Your task to perform on an android device: open app "Pandora - Music & Podcasts" (install if not already installed), go to login, and select forgot password Image 0: 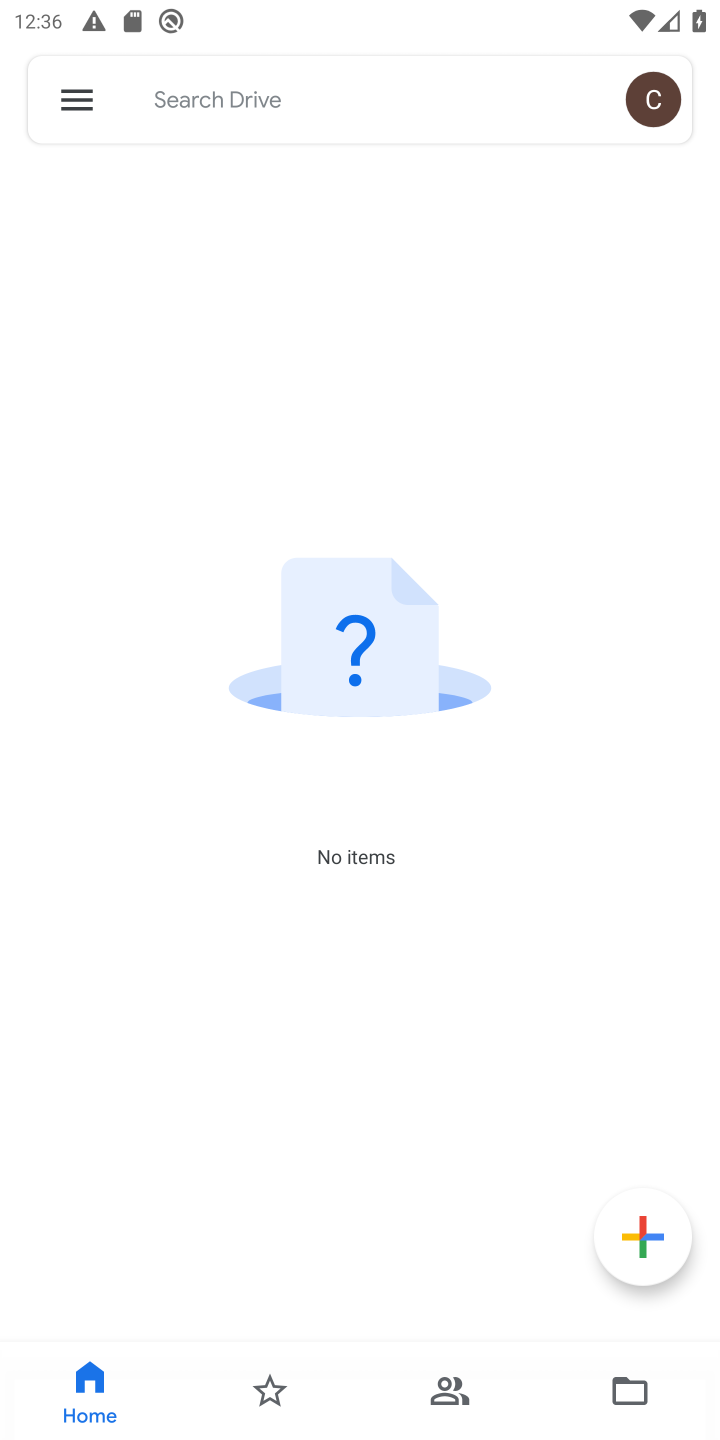
Step 0: press back button
Your task to perform on an android device: open app "Pandora - Music & Podcasts" (install if not already installed), go to login, and select forgot password Image 1: 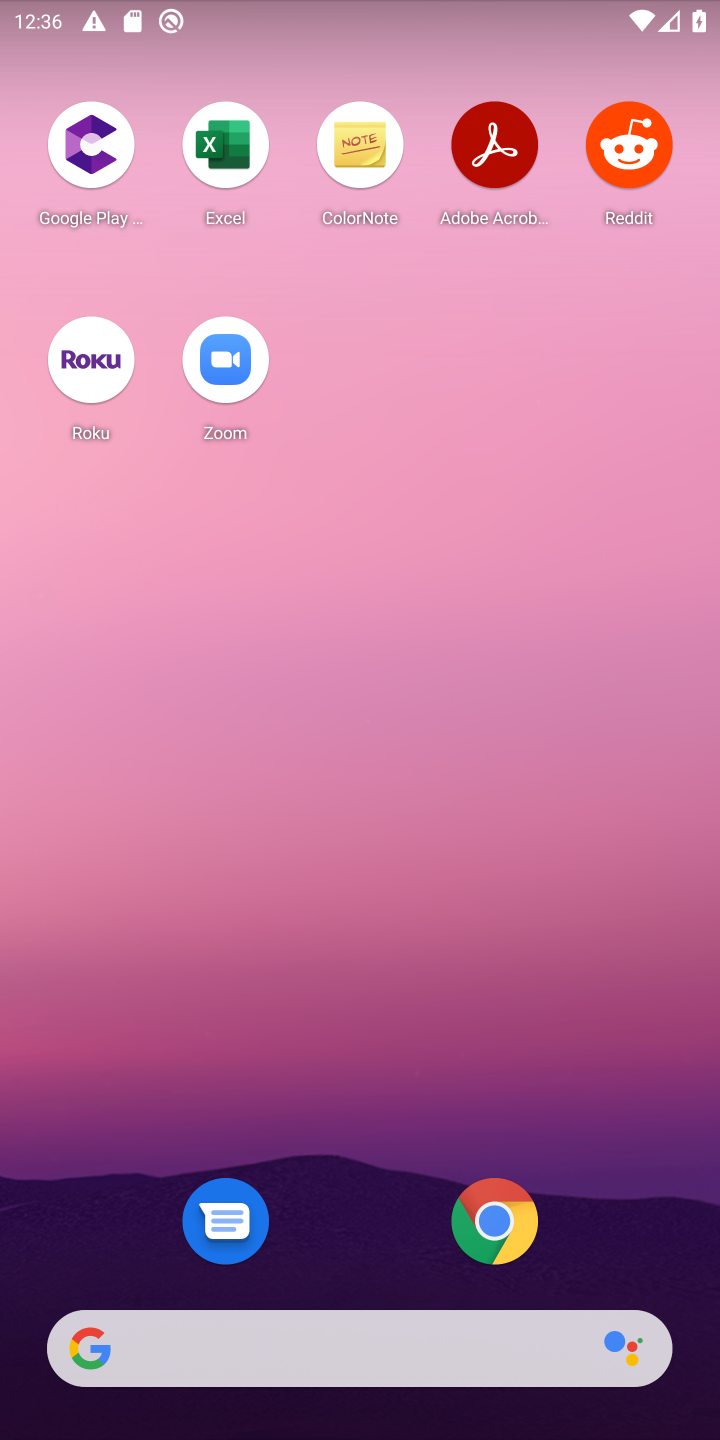
Step 1: drag from (377, 1177) to (431, 265)
Your task to perform on an android device: open app "Pandora - Music & Podcasts" (install if not already installed), go to login, and select forgot password Image 2: 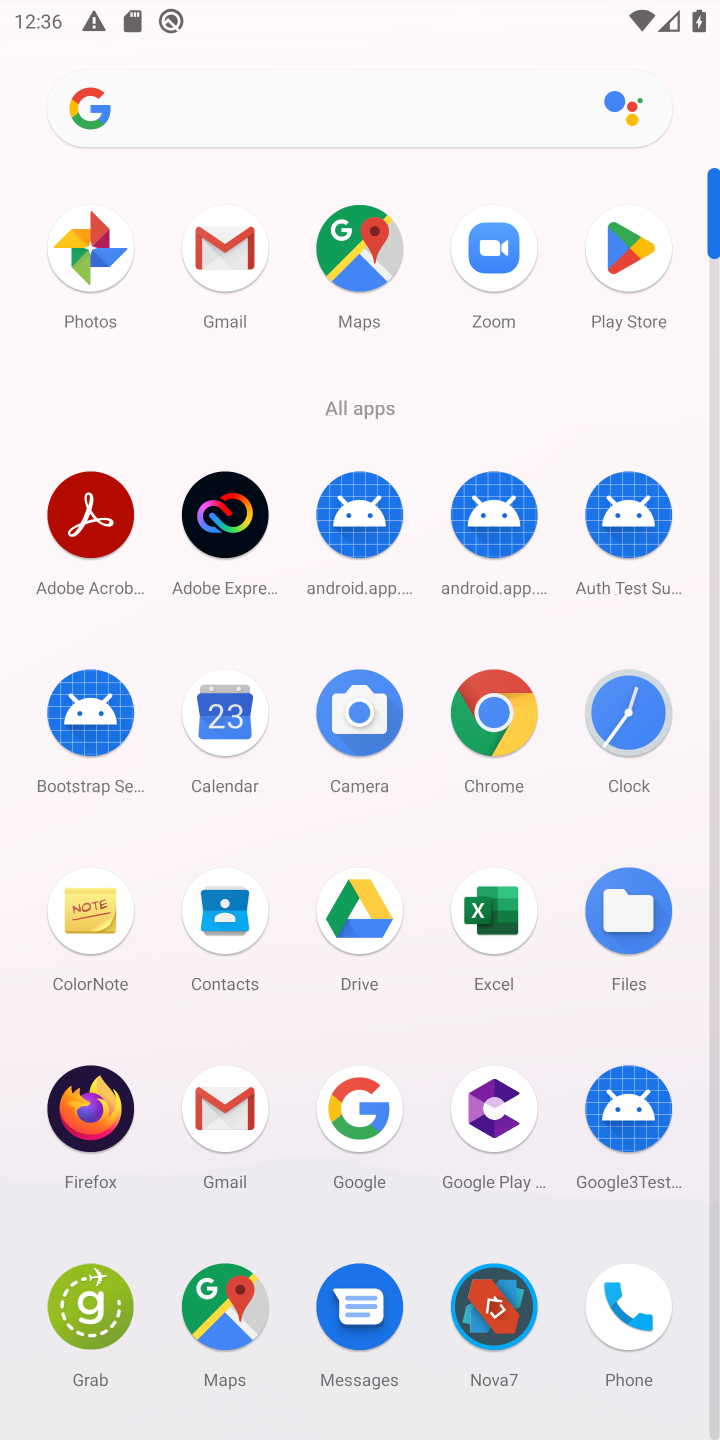
Step 2: click (614, 264)
Your task to perform on an android device: open app "Pandora - Music & Podcasts" (install if not already installed), go to login, and select forgot password Image 3: 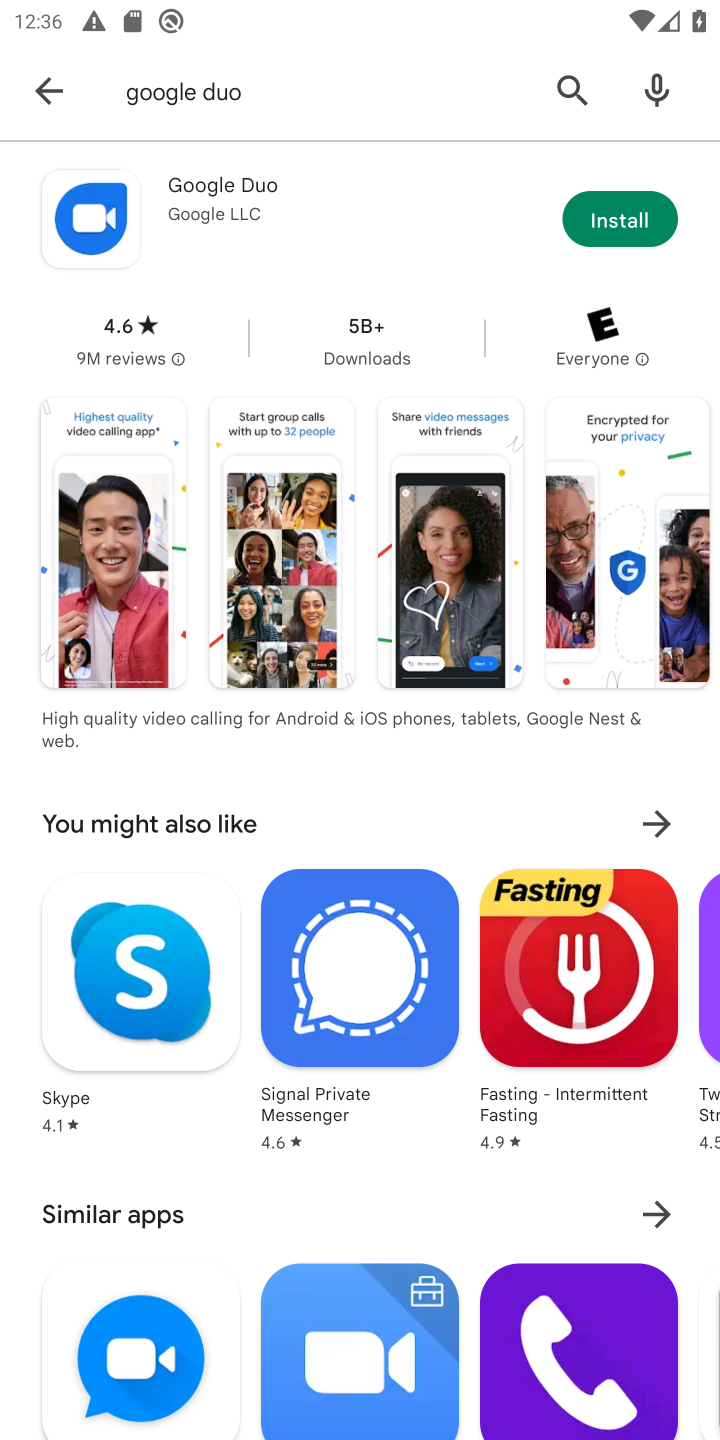
Step 3: click (593, 67)
Your task to perform on an android device: open app "Pandora - Music & Podcasts" (install if not already installed), go to login, and select forgot password Image 4: 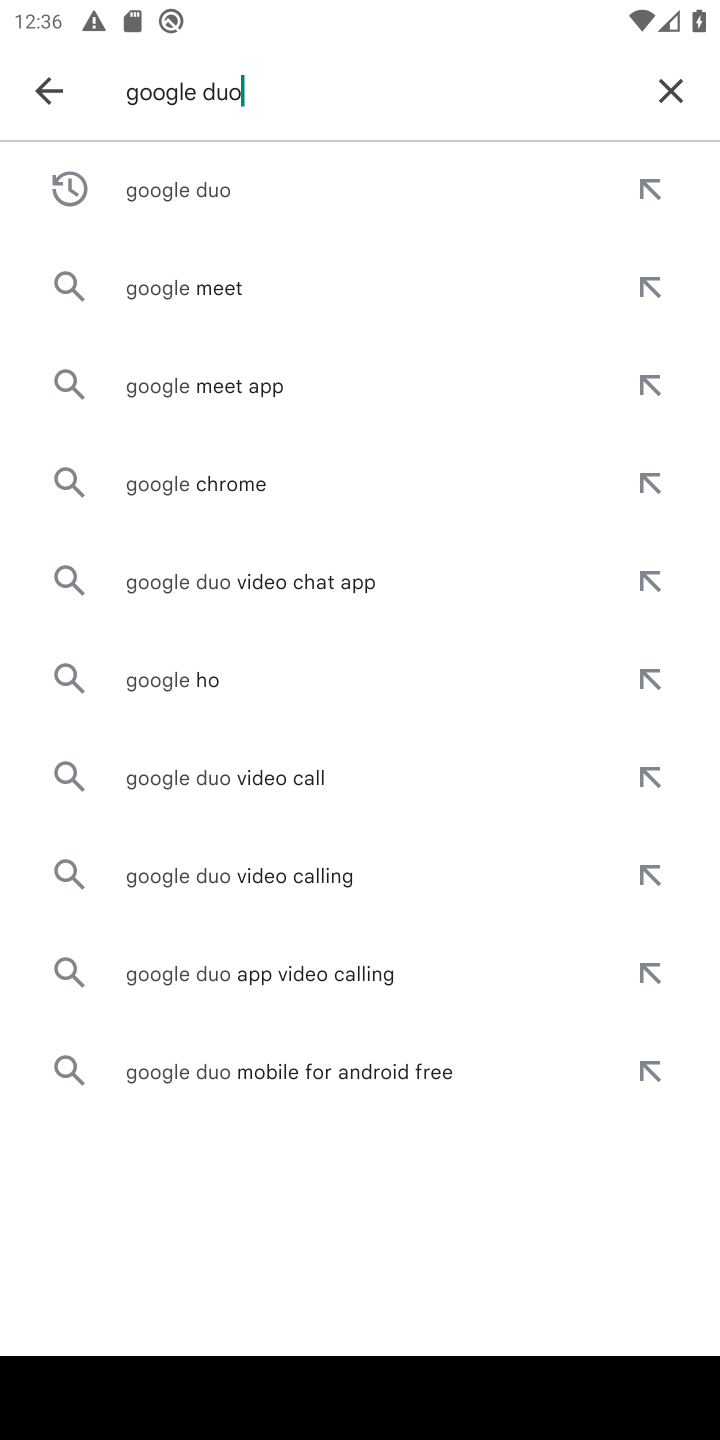
Step 4: click (680, 83)
Your task to perform on an android device: open app "Pandora - Music & Podcasts" (install if not already installed), go to login, and select forgot password Image 5: 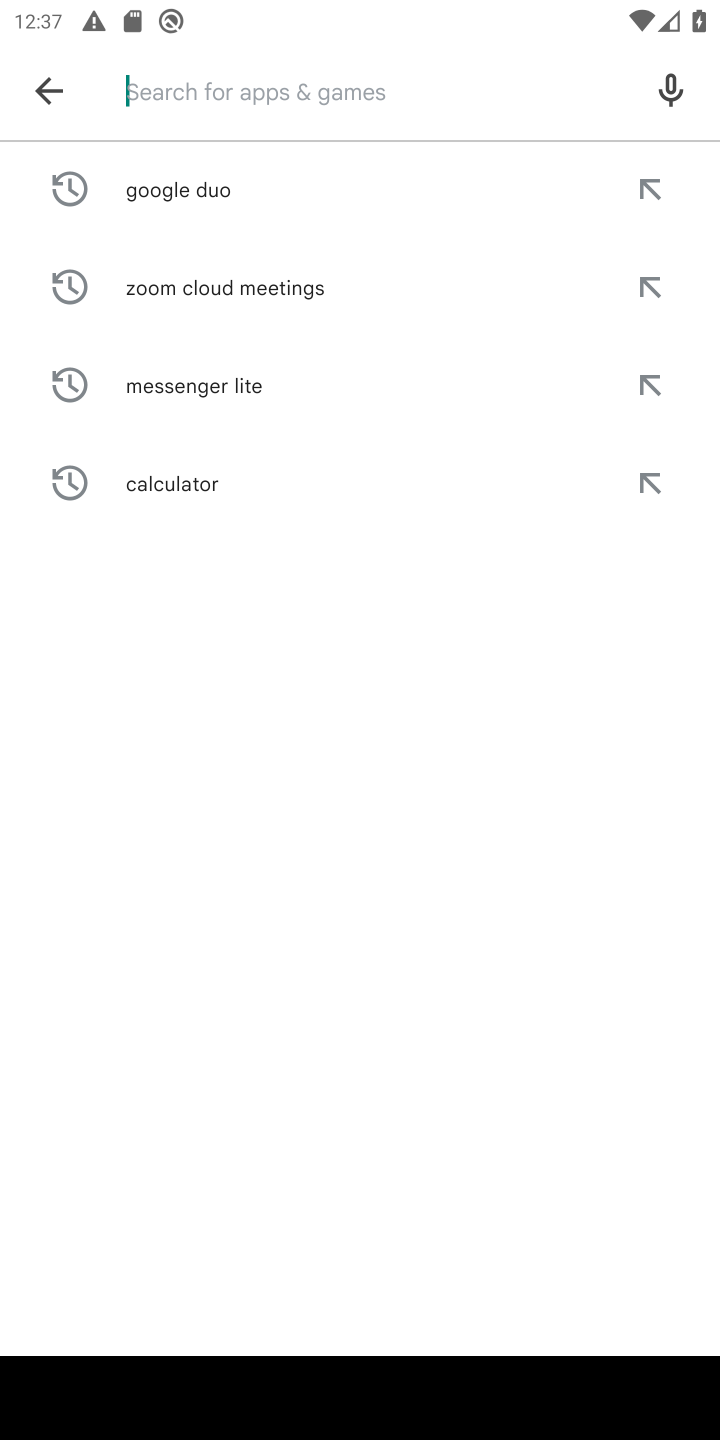
Step 5: type "Pandora"
Your task to perform on an android device: open app "Pandora - Music & Podcasts" (install if not already installed), go to login, and select forgot password Image 6: 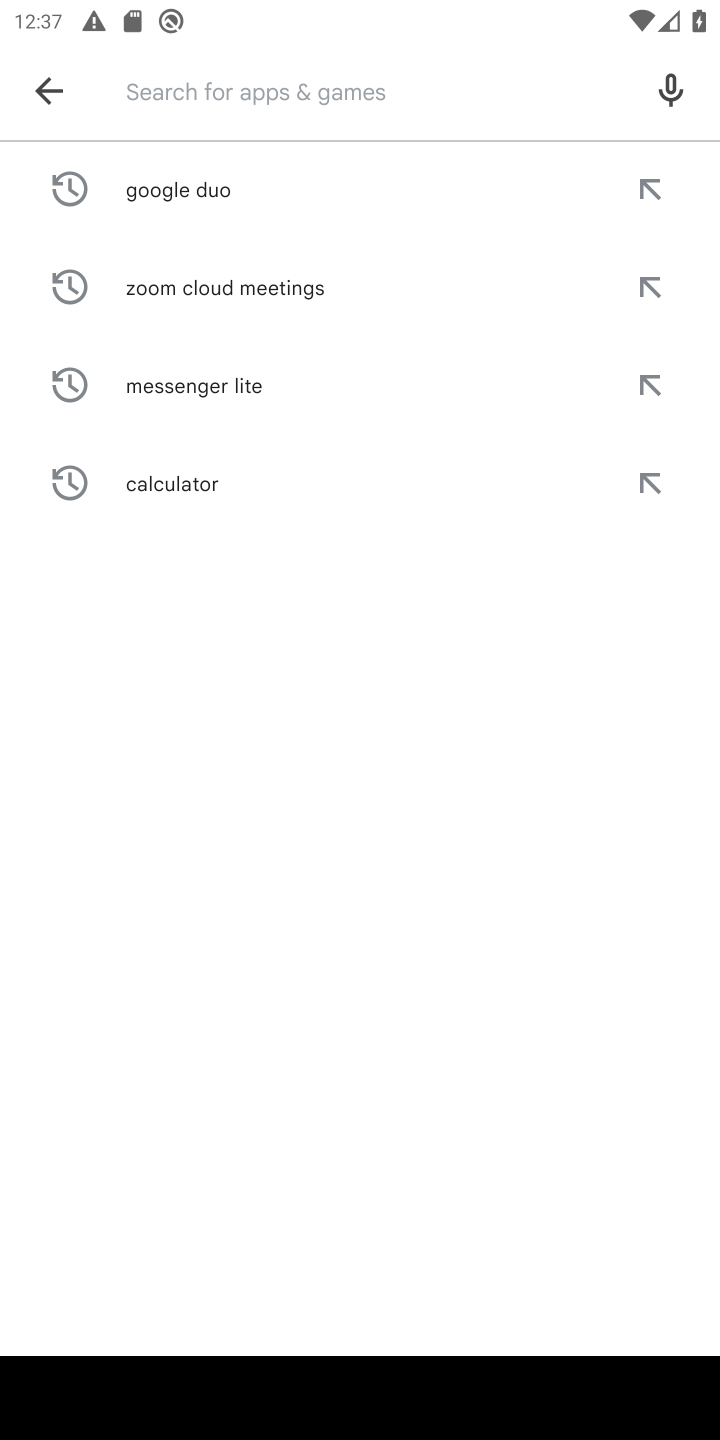
Step 6: click (516, 910)
Your task to perform on an android device: open app "Pandora - Music & Podcasts" (install if not already installed), go to login, and select forgot password Image 7: 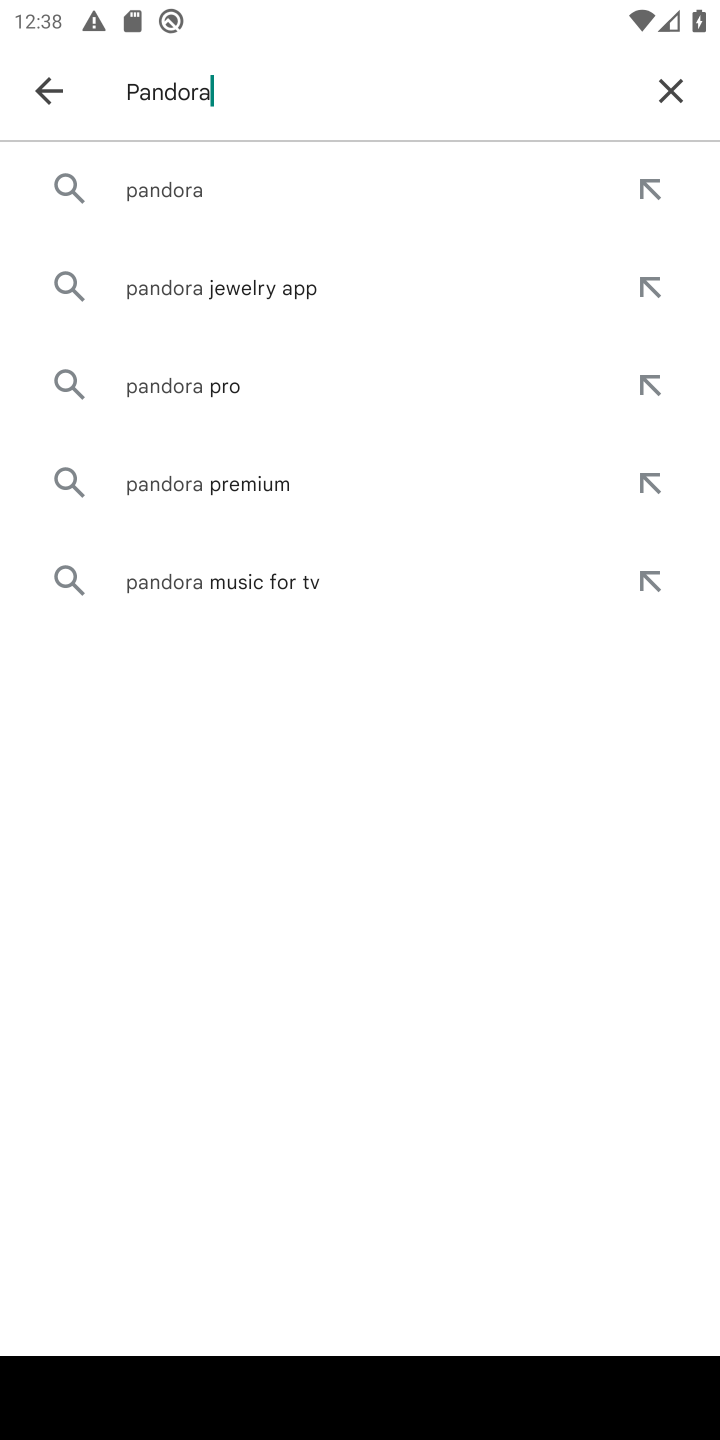
Step 7: click (213, 181)
Your task to perform on an android device: open app "Pandora - Music & Podcasts" (install if not already installed), go to login, and select forgot password Image 8: 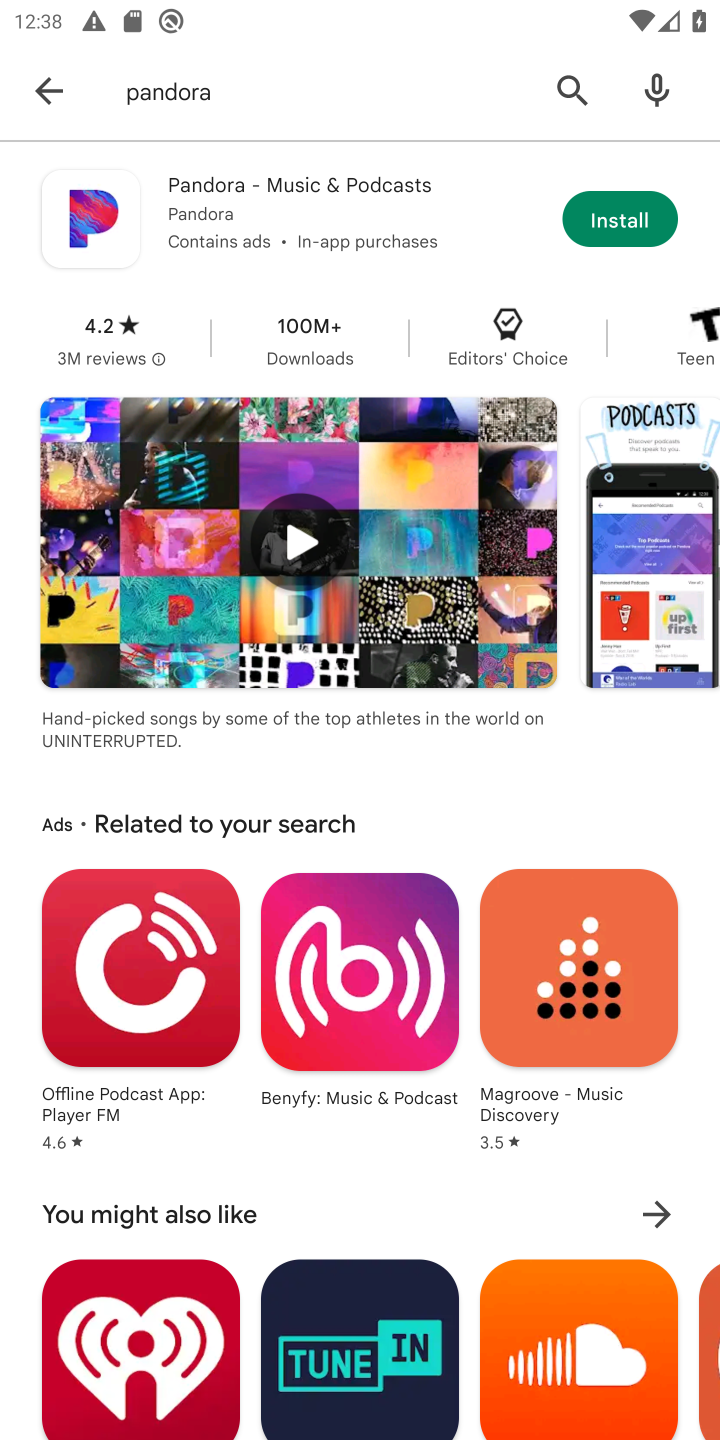
Step 8: click (591, 214)
Your task to perform on an android device: open app "Pandora - Music & Podcasts" (install if not already installed), go to login, and select forgot password Image 9: 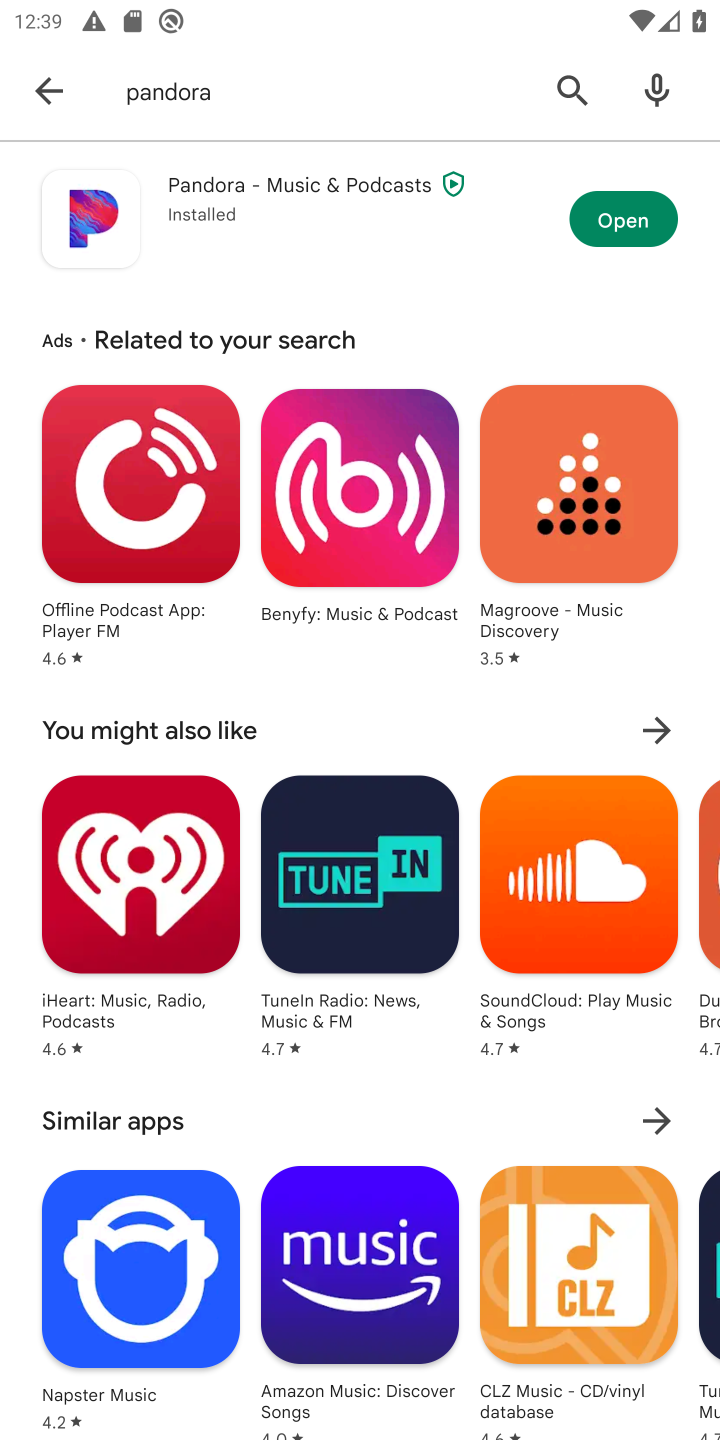
Step 9: click (623, 214)
Your task to perform on an android device: open app "Pandora - Music & Podcasts" (install if not already installed), go to login, and select forgot password Image 10: 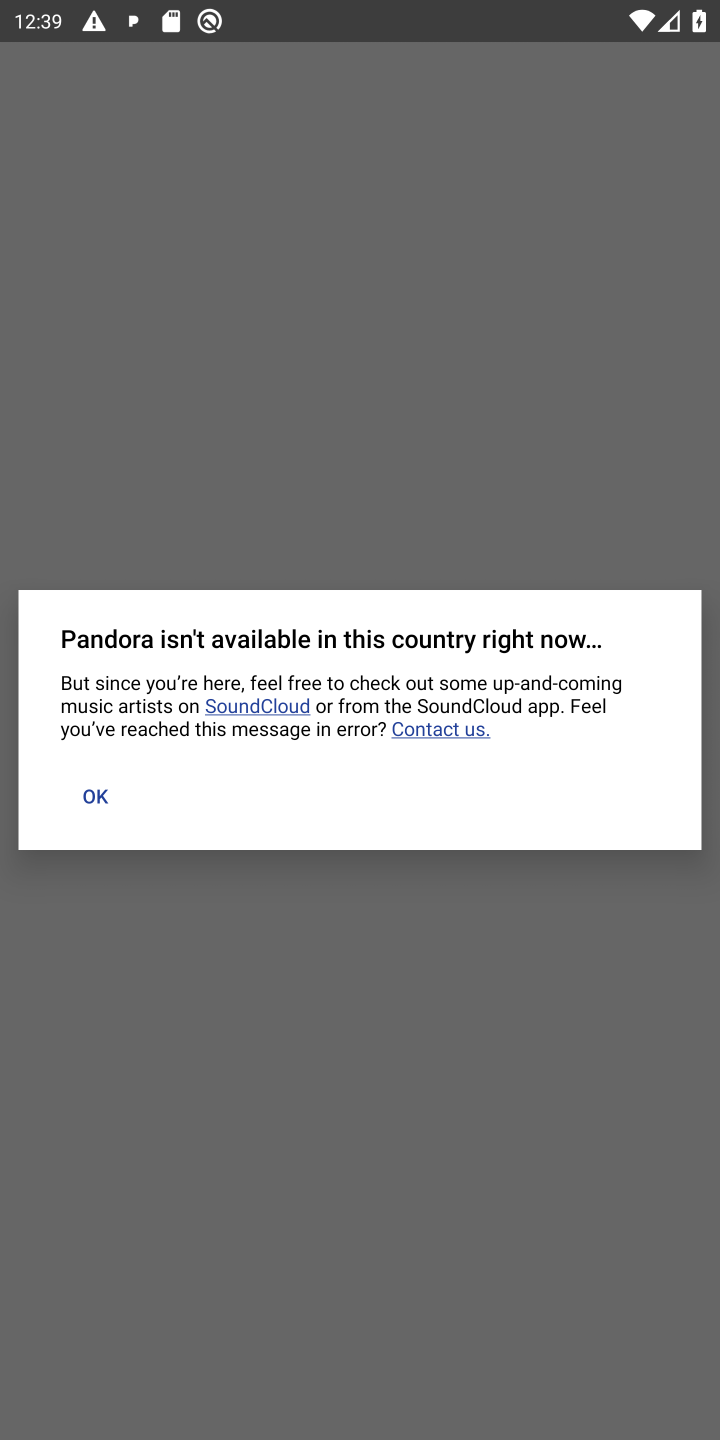
Step 10: task complete